Your task to perform on an android device: Search for the new nike air max shoes on Nike. Image 0: 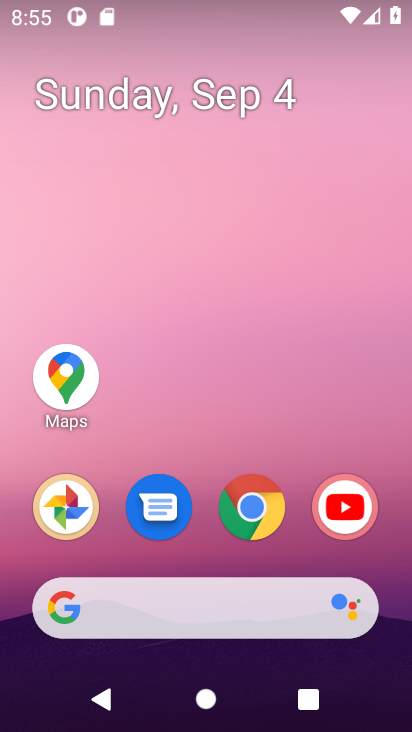
Step 0: click (255, 509)
Your task to perform on an android device: Search for the new nike air max shoes on Nike. Image 1: 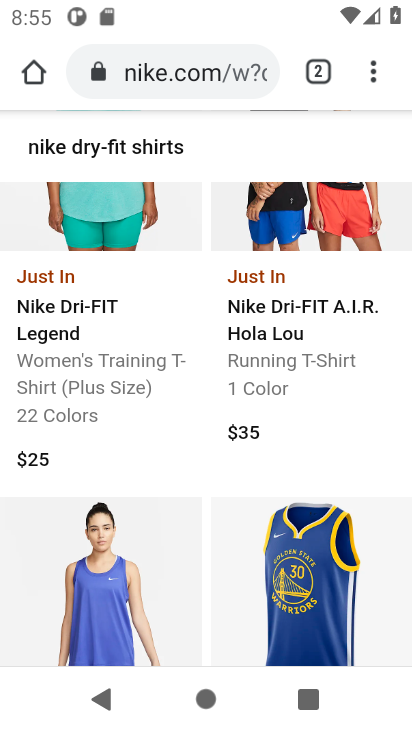
Step 1: click (180, 49)
Your task to perform on an android device: Search for the new nike air max shoes on Nike. Image 2: 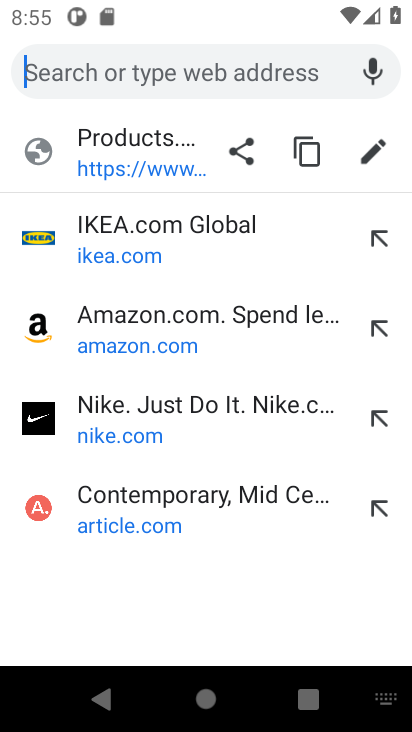
Step 2: click (162, 403)
Your task to perform on an android device: Search for the new nike air max shoes on Nike. Image 3: 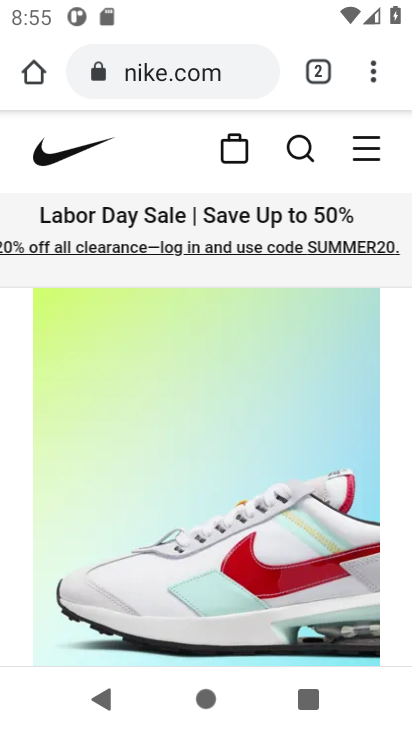
Step 3: click (294, 152)
Your task to perform on an android device: Search for the new nike air max shoes on Nike. Image 4: 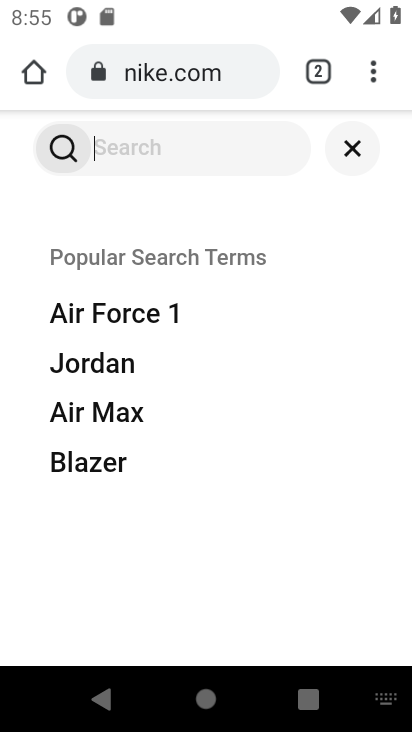
Step 4: type " new nike air max shoes"
Your task to perform on an android device: Search for the new nike air max shoes on Nike. Image 5: 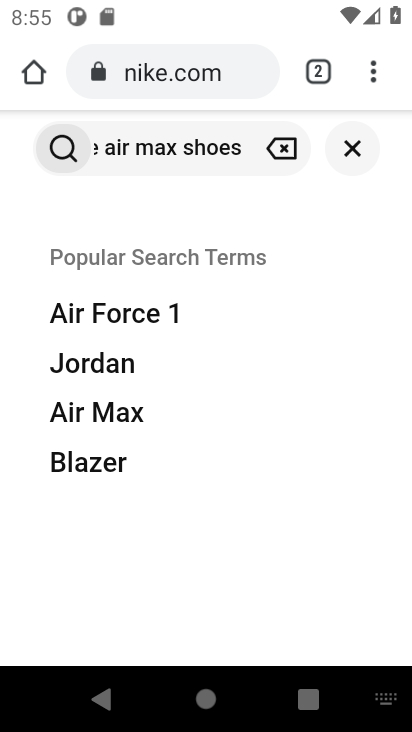
Step 5: click (71, 155)
Your task to perform on an android device: Search for the new nike air max shoes on Nike. Image 6: 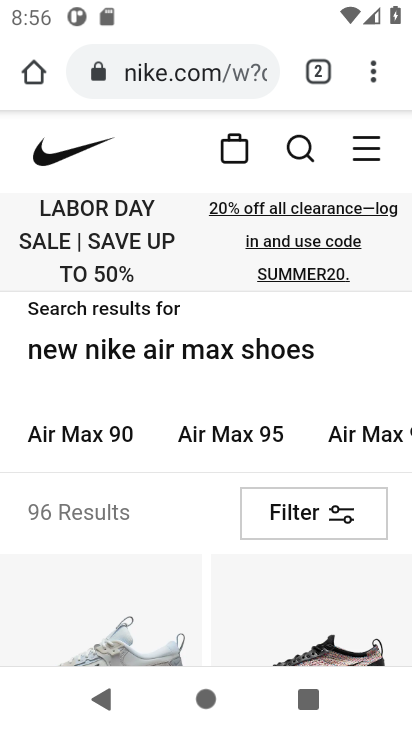
Step 6: drag from (206, 556) to (199, 258)
Your task to perform on an android device: Search for the new nike air max shoes on Nike. Image 7: 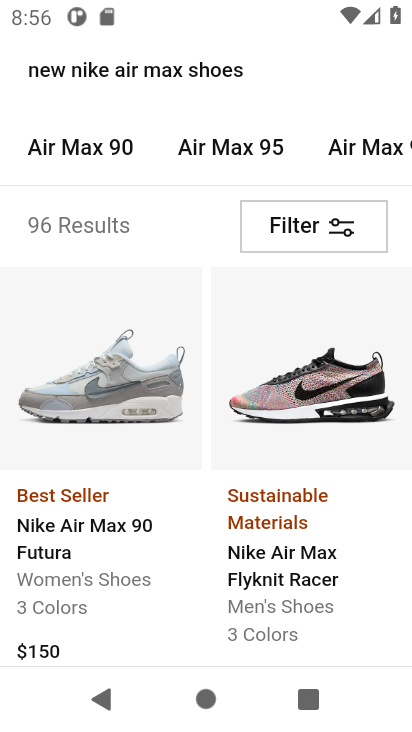
Step 7: drag from (206, 599) to (206, 371)
Your task to perform on an android device: Search for the new nike air max shoes on Nike. Image 8: 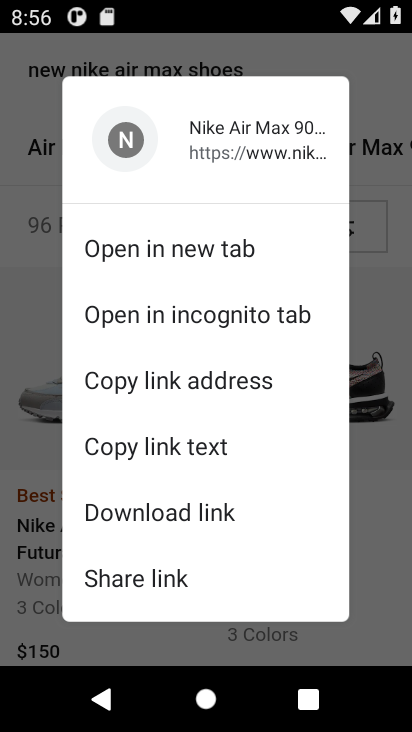
Step 8: click (24, 430)
Your task to perform on an android device: Search for the new nike air max shoes on Nike. Image 9: 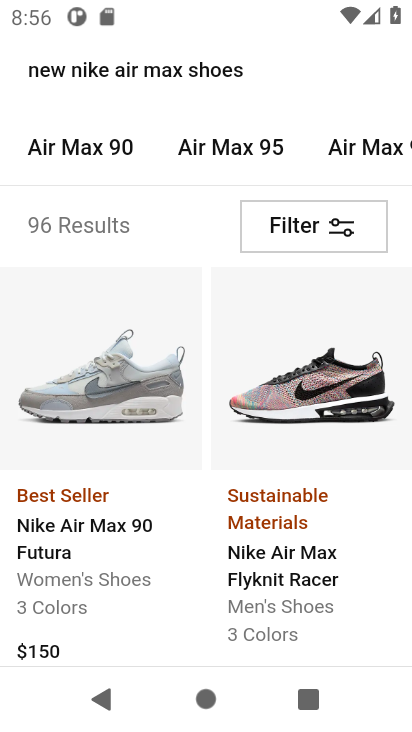
Step 9: task complete